Your task to perform on an android device: turn off javascript in the chrome app Image 0: 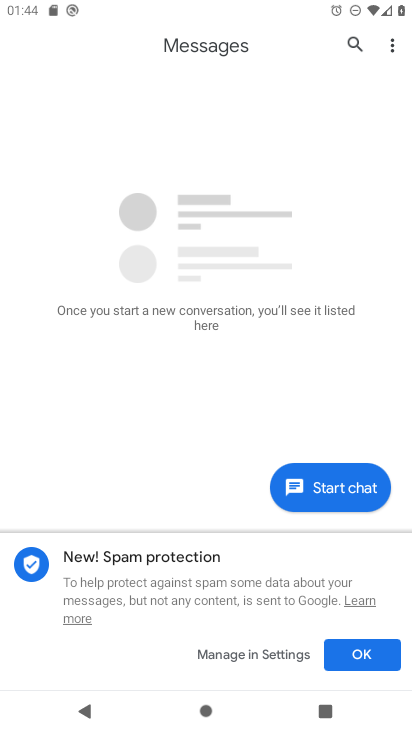
Step 0: press home button
Your task to perform on an android device: turn off javascript in the chrome app Image 1: 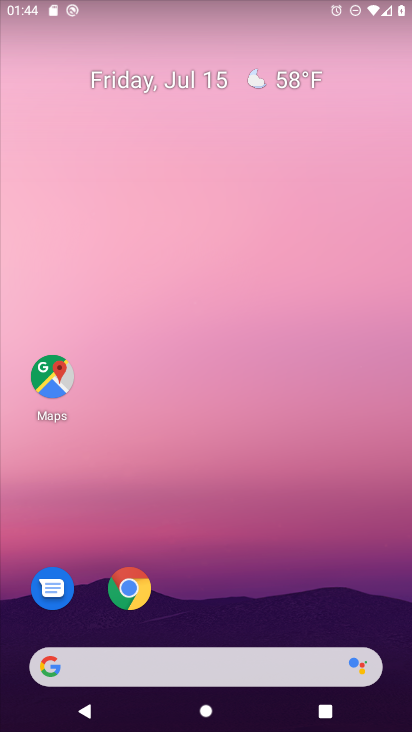
Step 1: click (123, 592)
Your task to perform on an android device: turn off javascript in the chrome app Image 2: 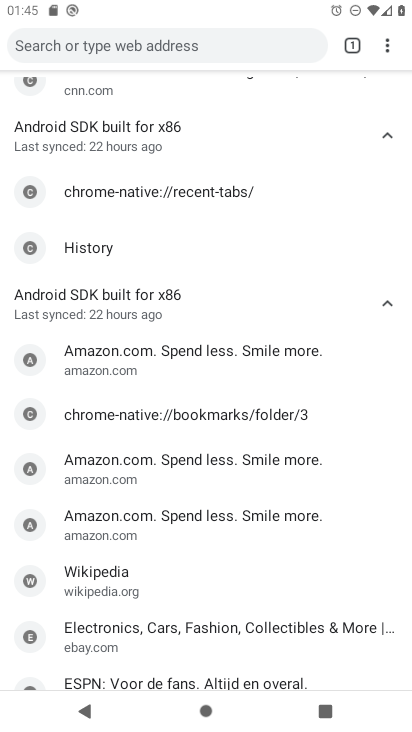
Step 2: click (386, 52)
Your task to perform on an android device: turn off javascript in the chrome app Image 3: 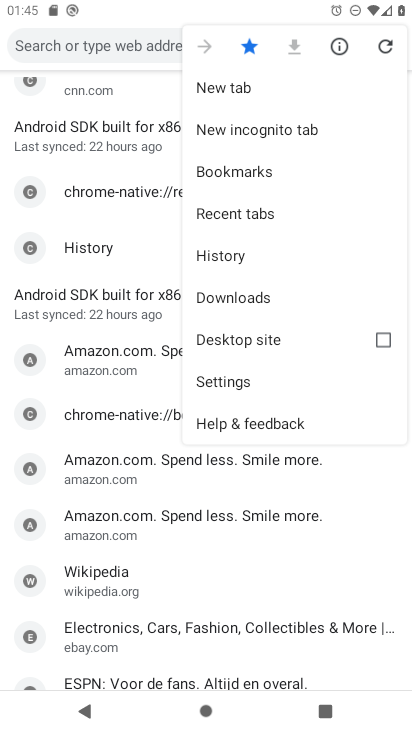
Step 3: click (219, 382)
Your task to perform on an android device: turn off javascript in the chrome app Image 4: 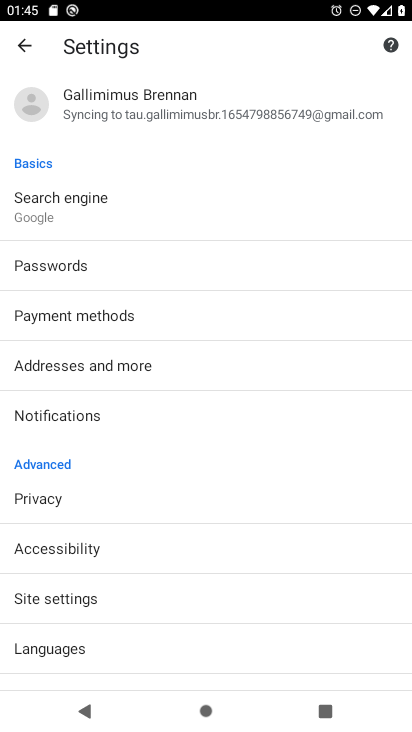
Step 4: click (66, 592)
Your task to perform on an android device: turn off javascript in the chrome app Image 5: 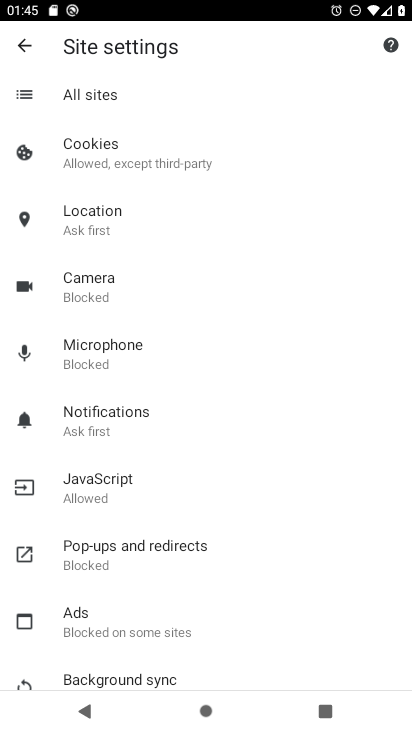
Step 5: click (94, 487)
Your task to perform on an android device: turn off javascript in the chrome app Image 6: 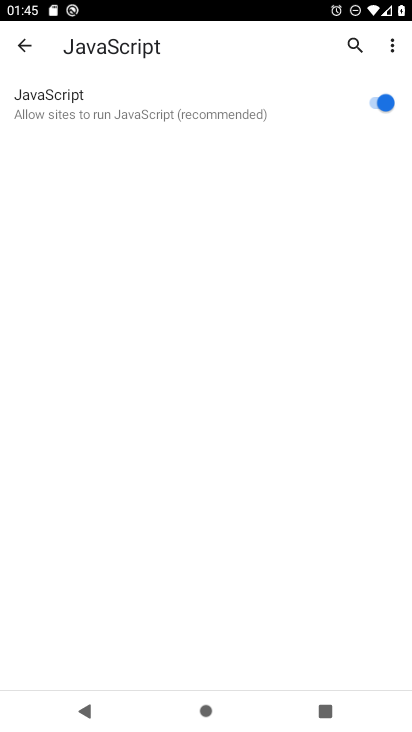
Step 6: click (372, 100)
Your task to perform on an android device: turn off javascript in the chrome app Image 7: 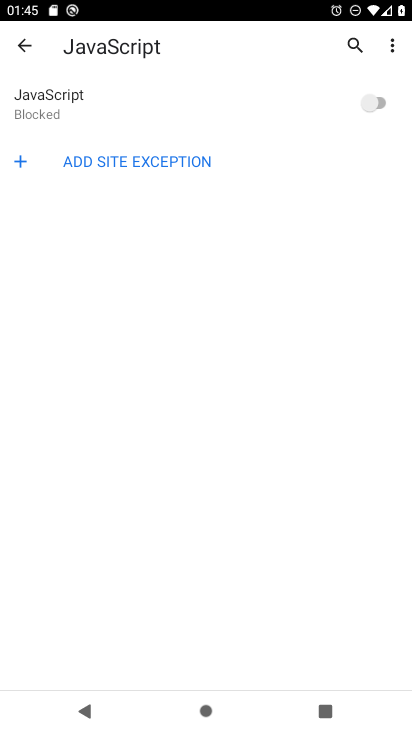
Step 7: task complete